Your task to perform on an android device: Open Yahoo.com Image 0: 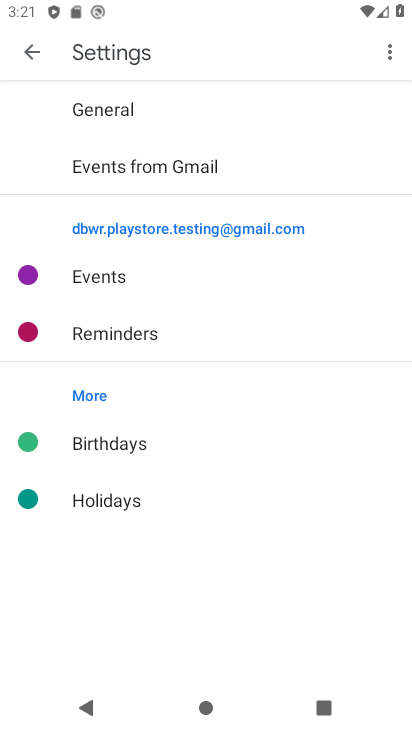
Step 0: press back button
Your task to perform on an android device: Open Yahoo.com Image 1: 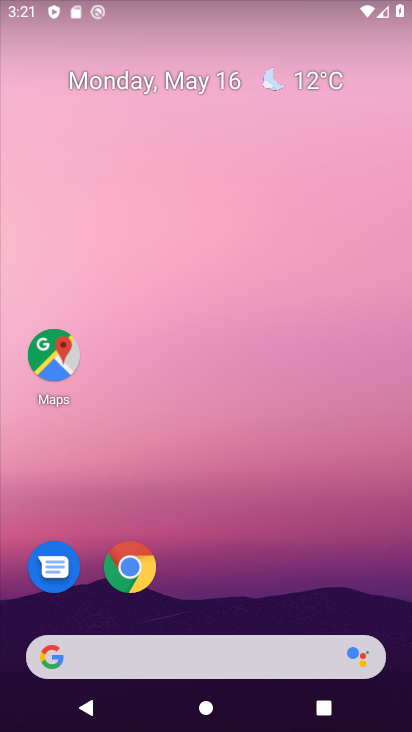
Step 1: drag from (275, 552) to (241, 34)
Your task to perform on an android device: Open Yahoo.com Image 2: 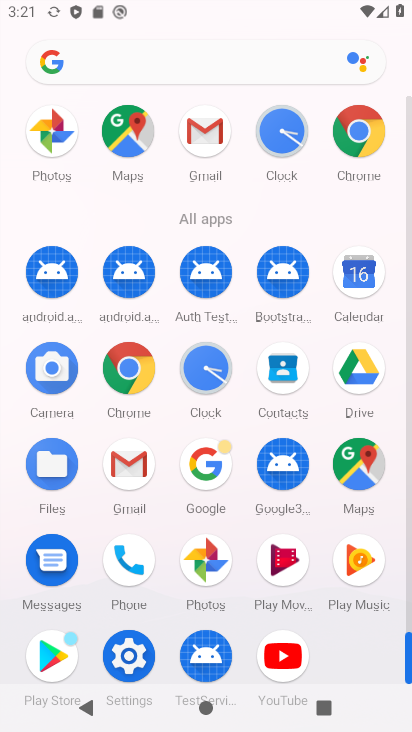
Step 2: click (361, 128)
Your task to perform on an android device: Open Yahoo.com Image 3: 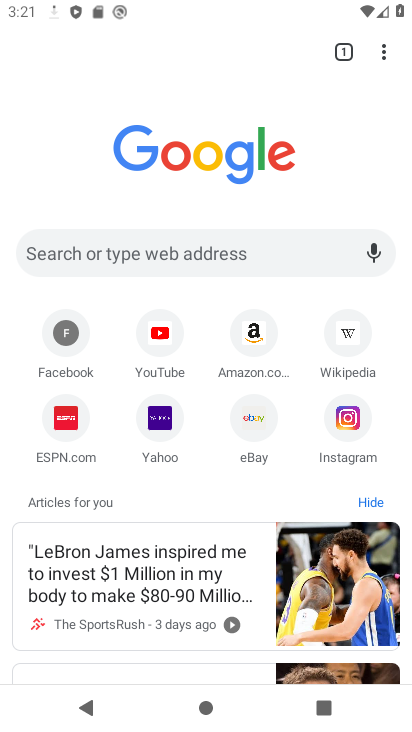
Step 3: click (155, 400)
Your task to perform on an android device: Open Yahoo.com Image 4: 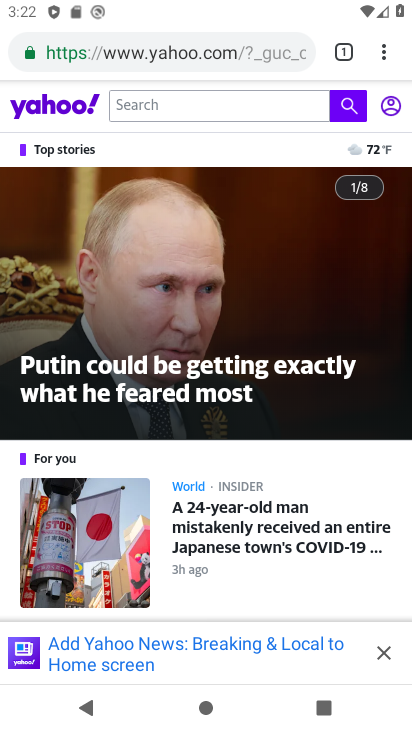
Step 4: task complete